Your task to perform on an android device: find snoozed emails in the gmail app Image 0: 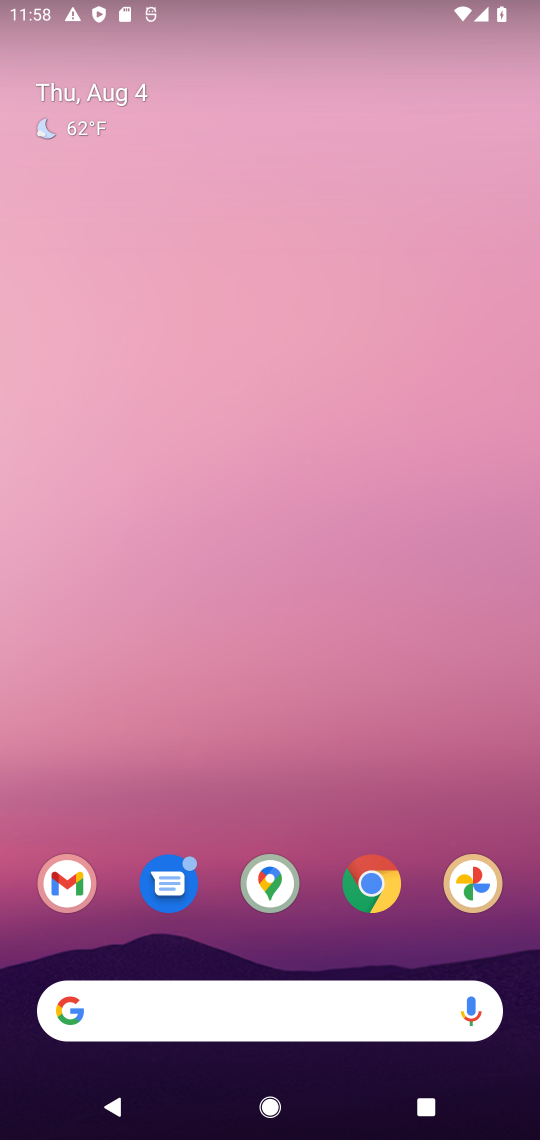
Step 0: click (513, 188)
Your task to perform on an android device: find snoozed emails in the gmail app Image 1: 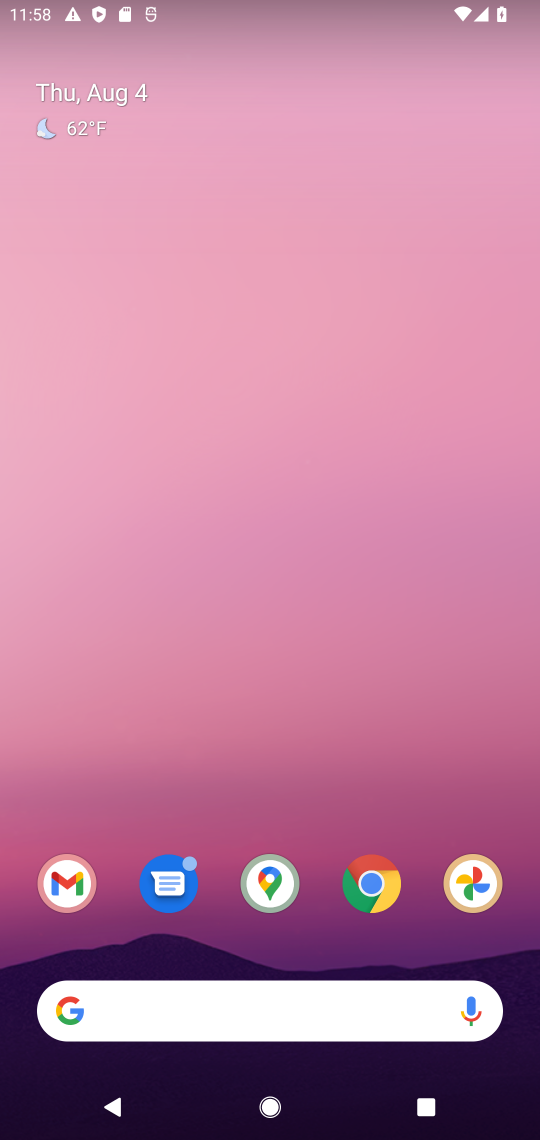
Step 1: drag from (315, 908) to (411, 693)
Your task to perform on an android device: find snoozed emails in the gmail app Image 2: 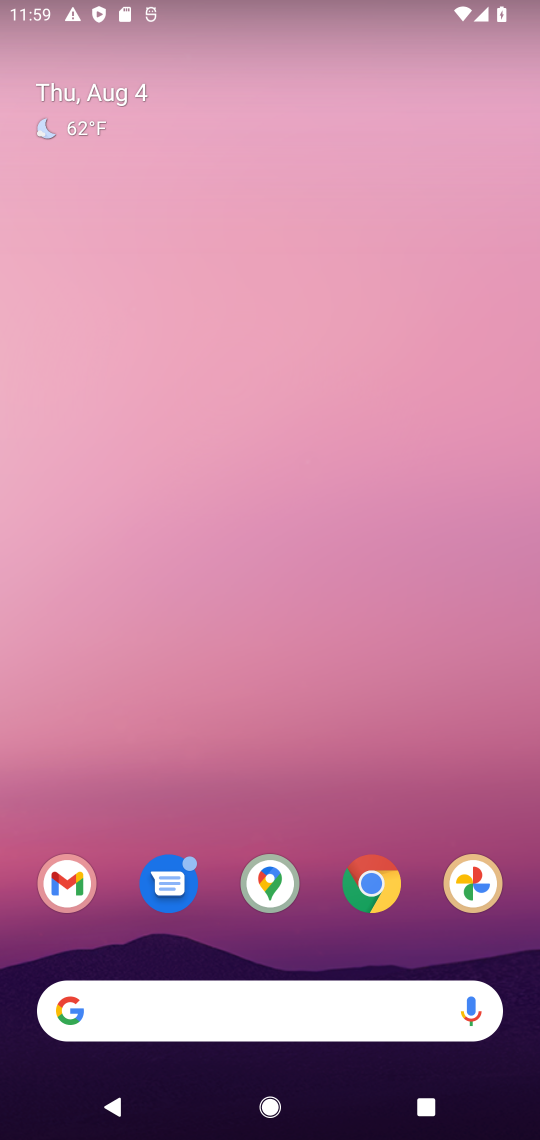
Step 2: drag from (289, 911) to (185, 37)
Your task to perform on an android device: find snoozed emails in the gmail app Image 3: 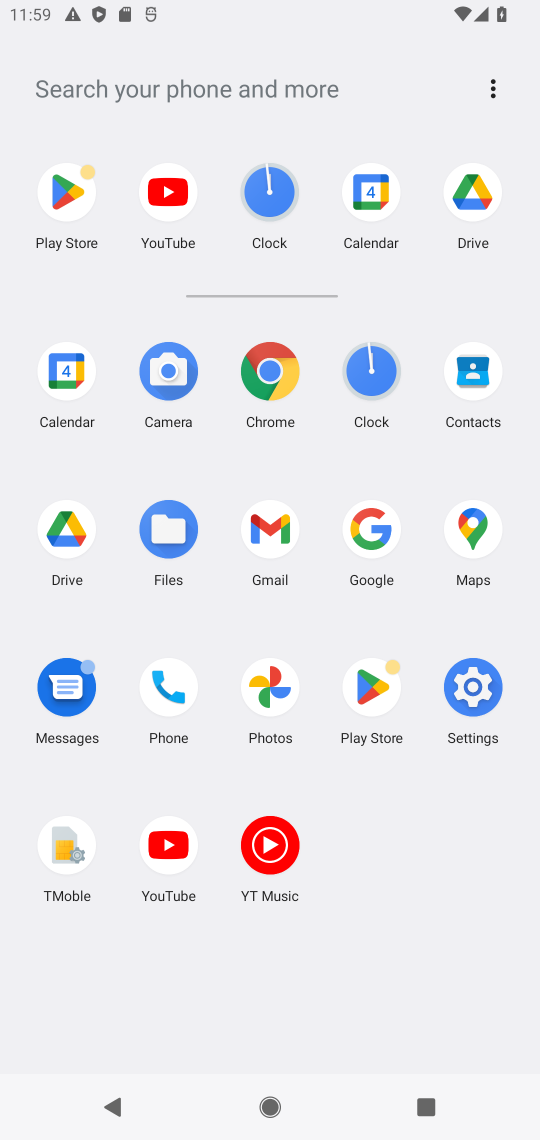
Step 3: click (280, 545)
Your task to perform on an android device: find snoozed emails in the gmail app Image 4: 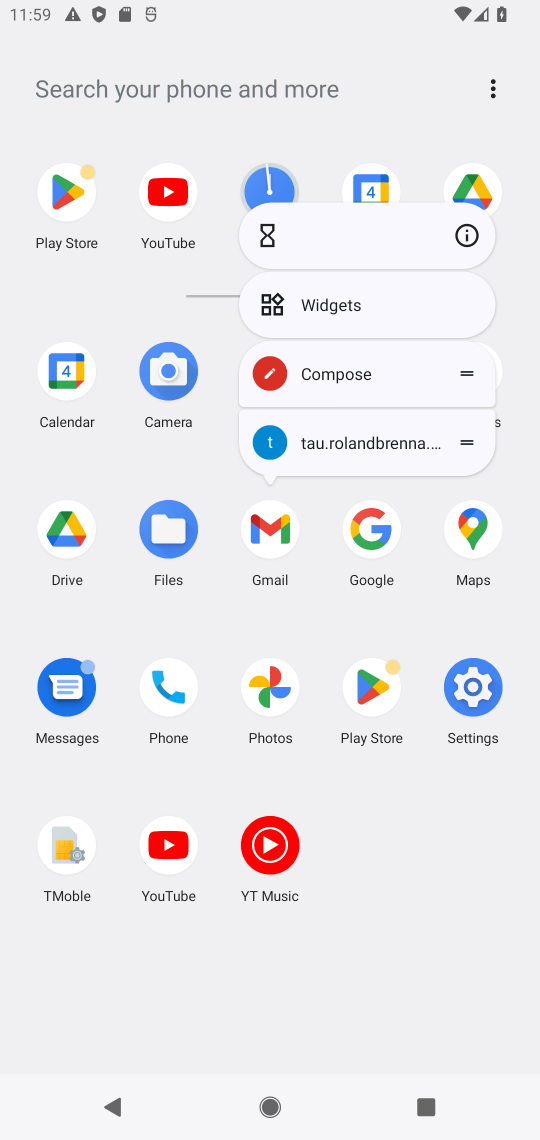
Step 4: click (463, 241)
Your task to perform on an android device: find snoozed emails in the gmail app Image 5: 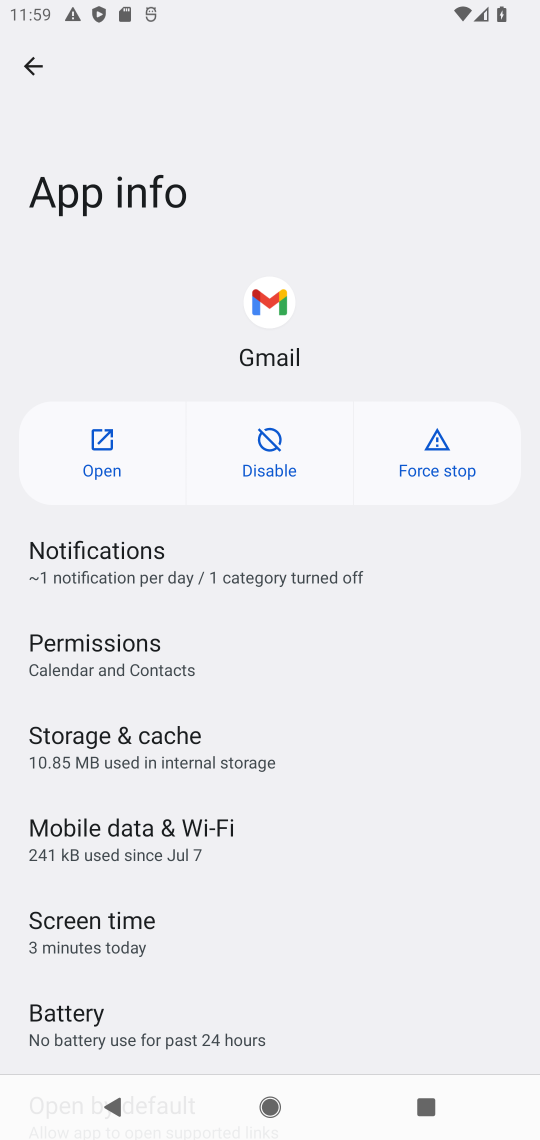
Step 5: click (94, 450)
Your task to perform on an android device: find snoozed emails in the gmail app Image 6: 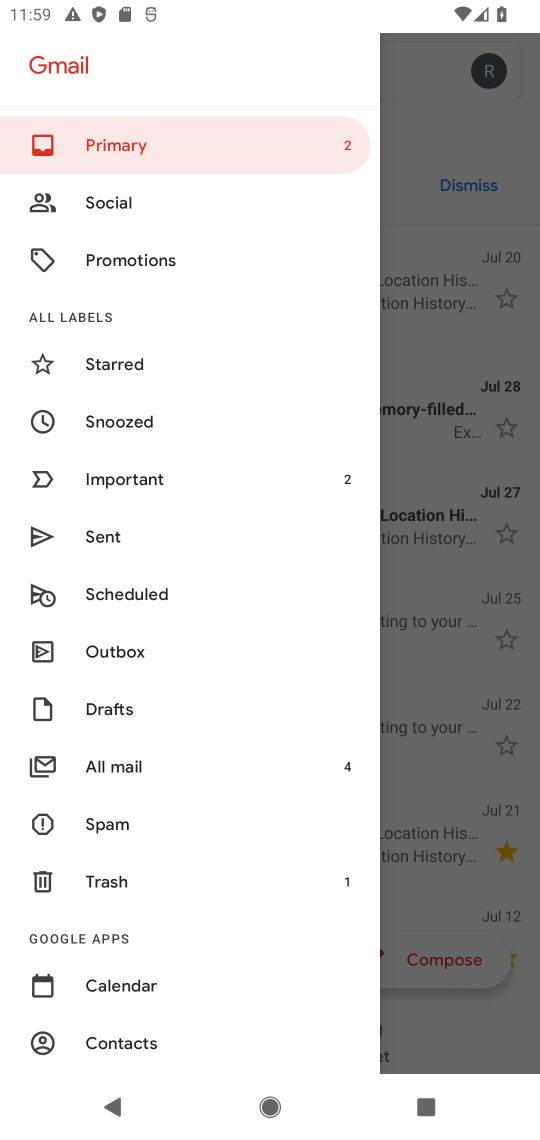
Step 6: click (127, 424)
Your task to perform on an android device: find snoozed emails in the gmail app Image 7: 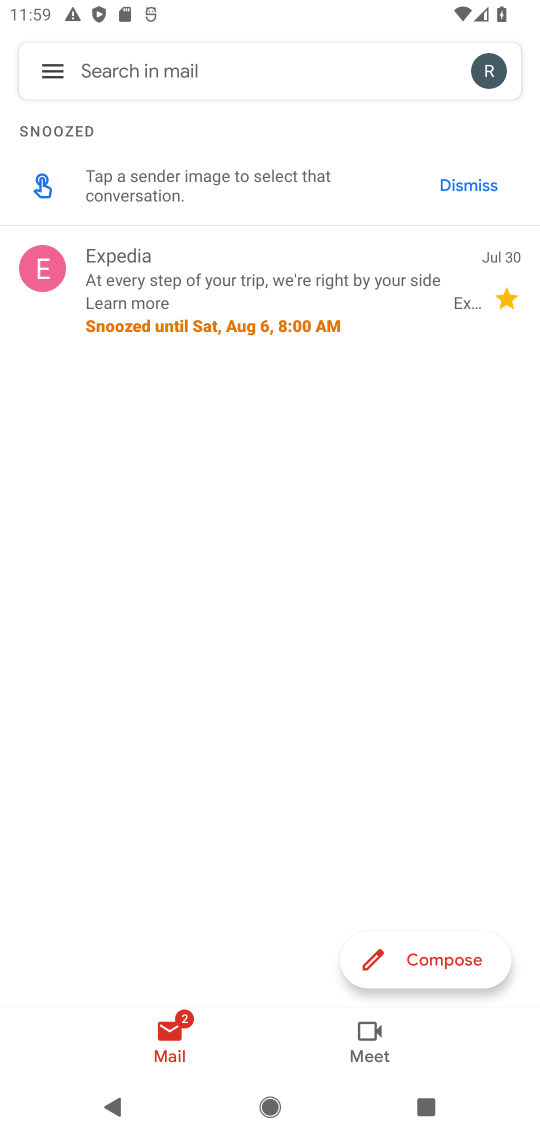
Step 7: drag from (267, 852) to (213, 580)
Your task to perform on an android device: find snoozed emails in the gmail app Image 8: 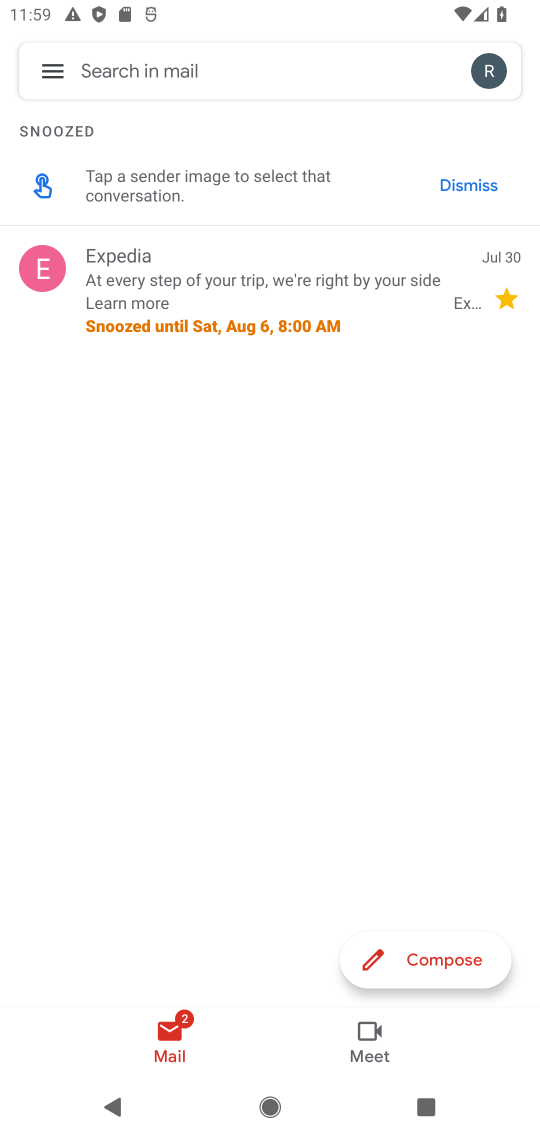
Step 8: click (58, 56)
Your task to perform on an android device: find snoozed emails in the gmail app Image 9: 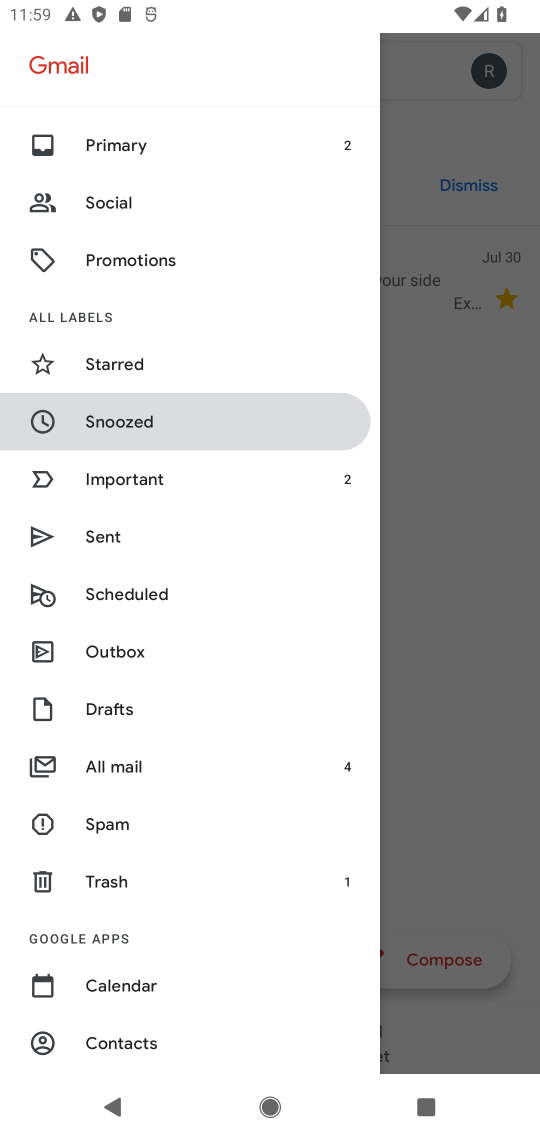
Step 9: click (123, 433)
Your task to perform on an android device: find snoozed emails in the gmail app Image 10: 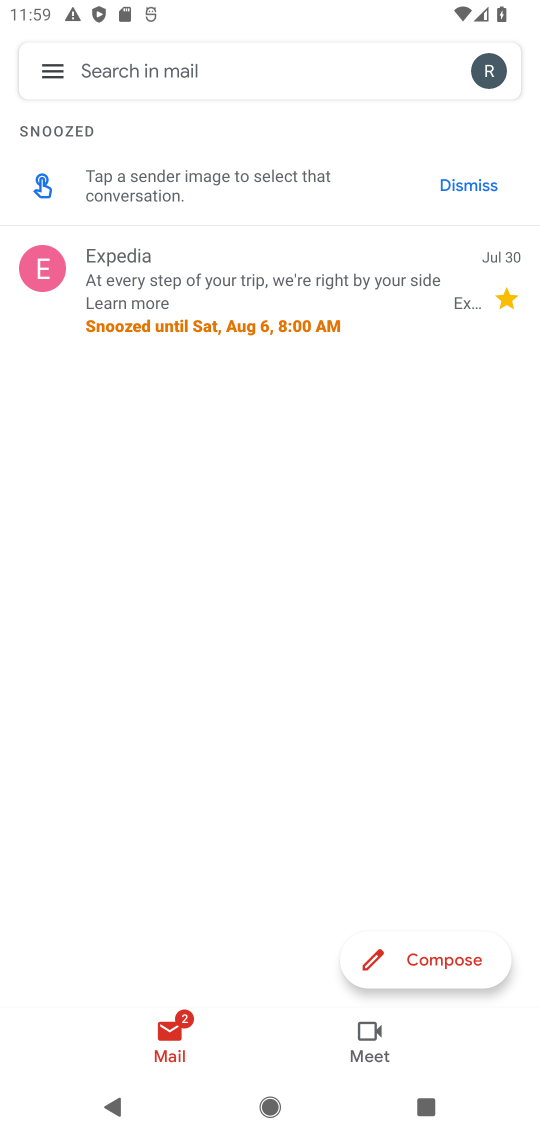
Step 10: task complete